Your task to perform on an android device: Go to Reddit.com Image 0: 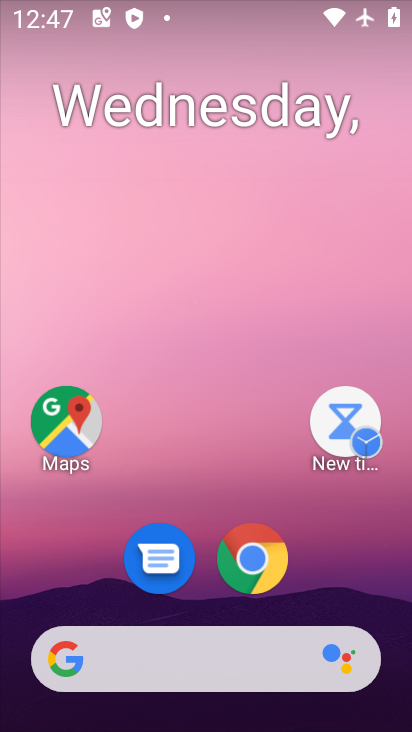
Step 0: click (180, 111)
Your task to perform on an android device: Go to Reddit.com Image 1: 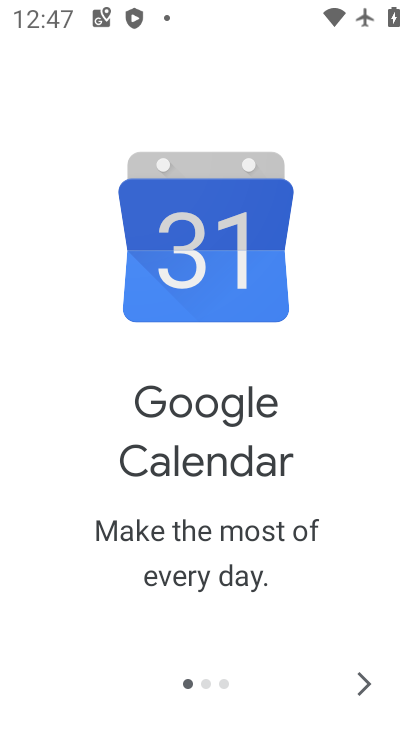
Step 1: click (369, 679)
Your task to perform on an android device: Go to Reddit.com Image 2: 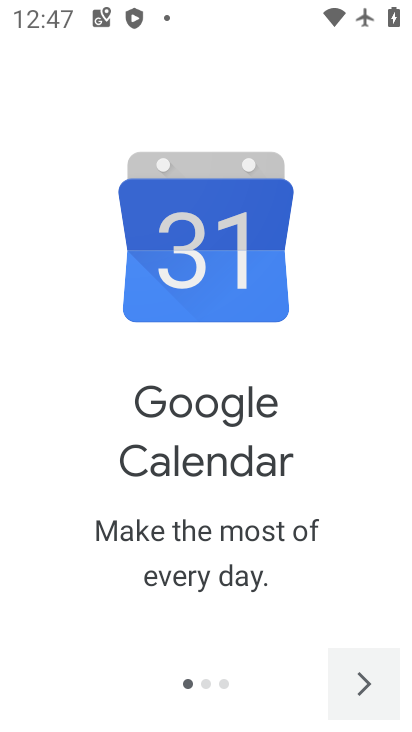
Step 2: click (369, 679)
Your task to perform on an android device: Go to Reddit.com Image 3: 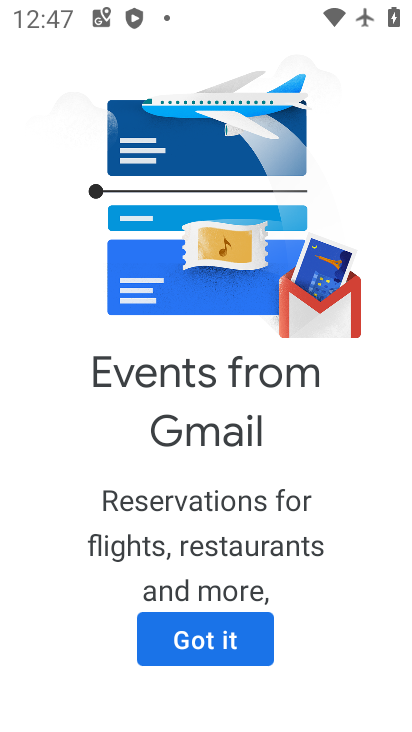
Step 3: click (210, 639)
Your task to perform on an android device: Go to Reddit.com Image 4: 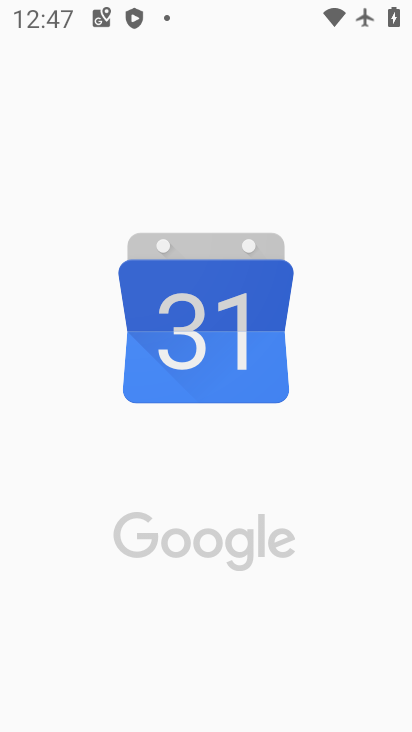
Step 4: click (212, 637)
Your task to perform on an android device: Go to Reddit.com Image 5: 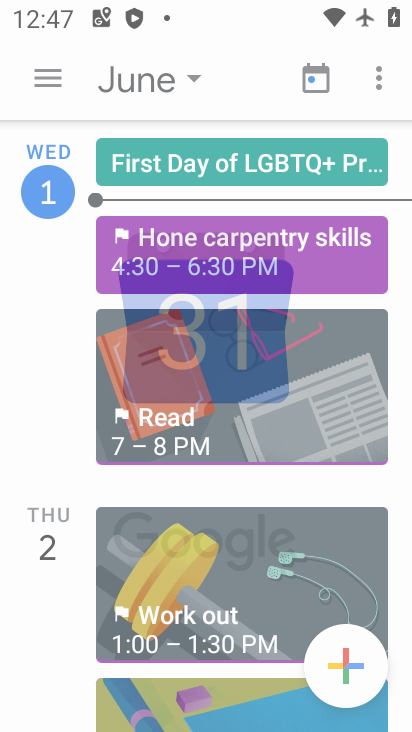
Step 5: click (205, 626)
Your task to perform on an android device: Go to Reddit.com Image 6: 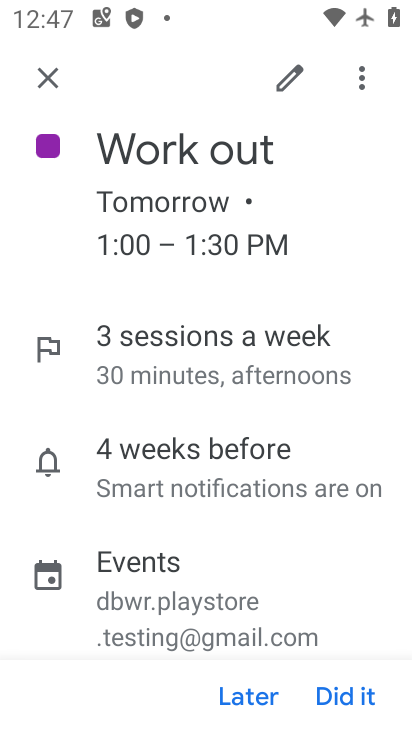
Step 6: press back button
Your task to perform on an android device: Go to Reddit.com Image 7: 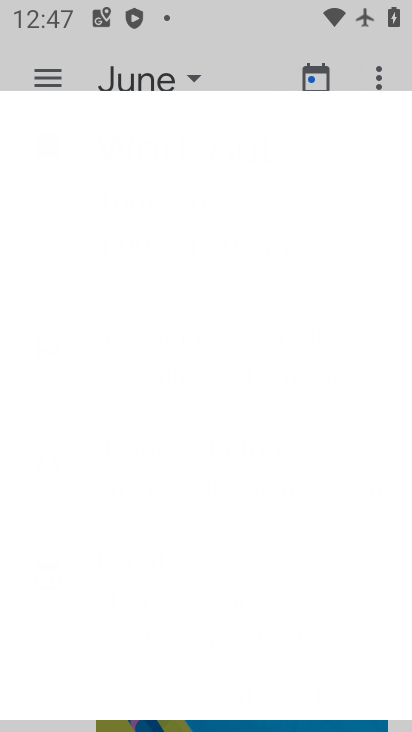
Step 7: press back button
Your task to perform on an android device: Go to Reddit.com Image 8: 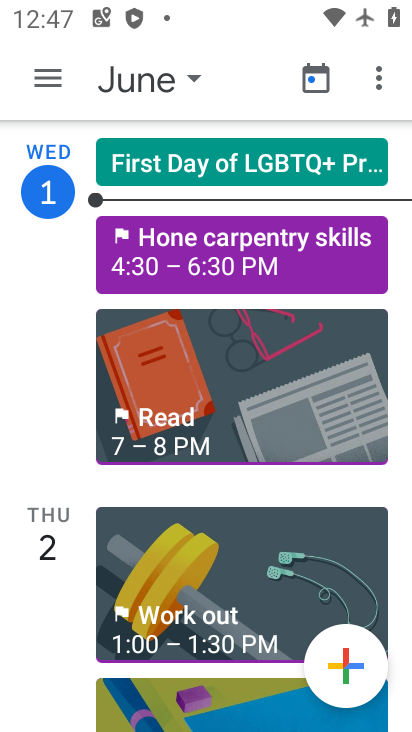
Step 8: press back button
Your task to perform on an android device: Go to Reddit.com Image 9: 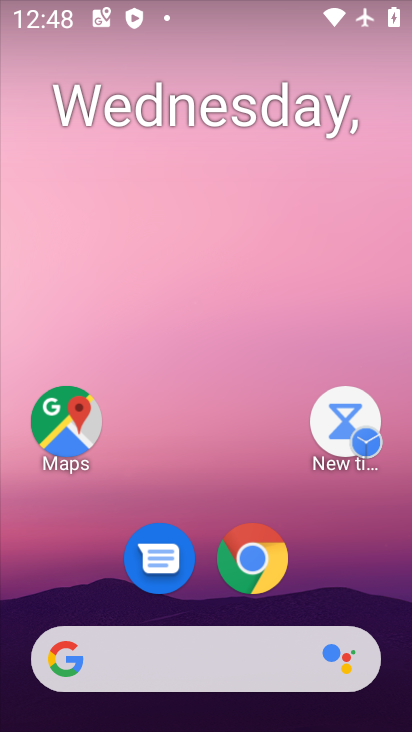
Step 9: drag from (236, 532) to (187, 6)
Your task to perform on an android device: Go to Reddit.com Image 10: 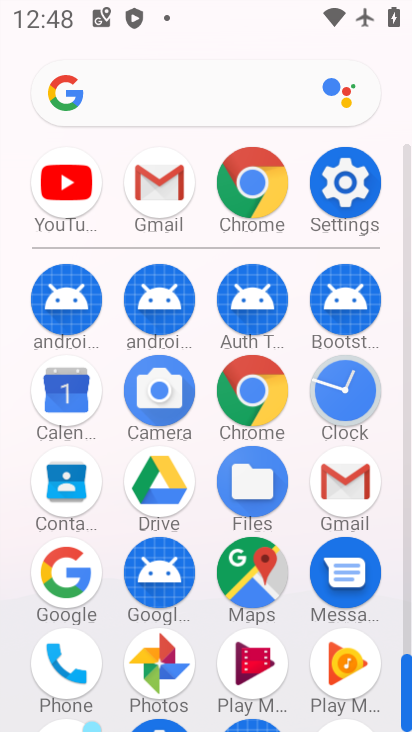
Step 10: click (255, 246)
Your task to perform on an android device: Go to Reddit.com Image 11: 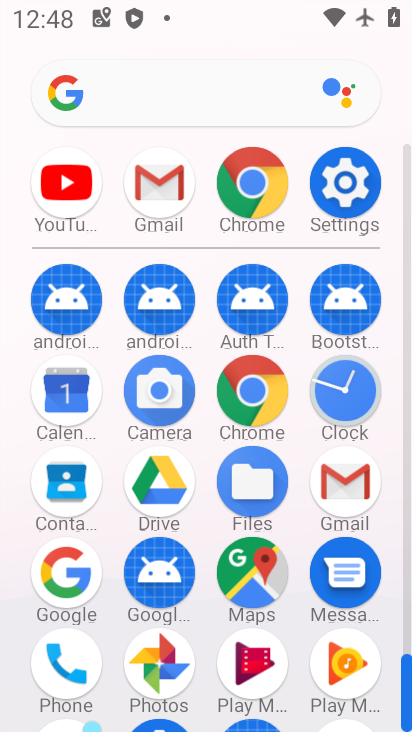
Step 11: click (256, 240)
Your task to perform on an android device: Go to Reddit.com Image 12: 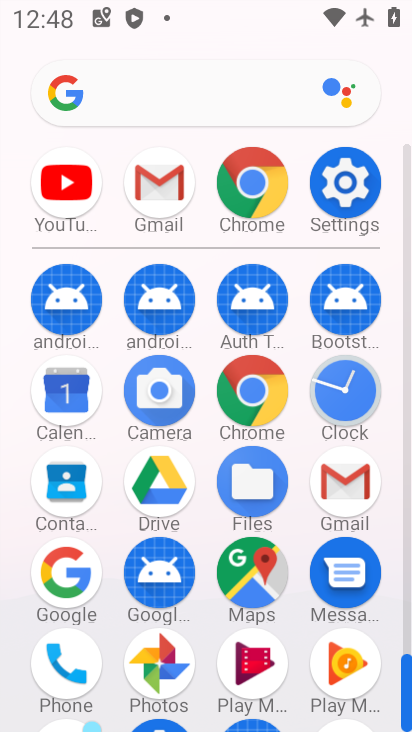
Step 12: click (254, 240)
Your task to perform on an android device: Go to Reddit.com Image 13: 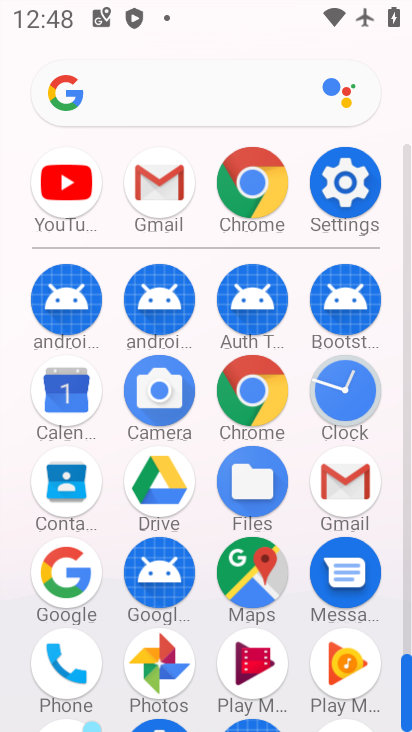
Step 13: click (253, 241)
Your task to perform on an android device: Go to Reddit.com Image 14: 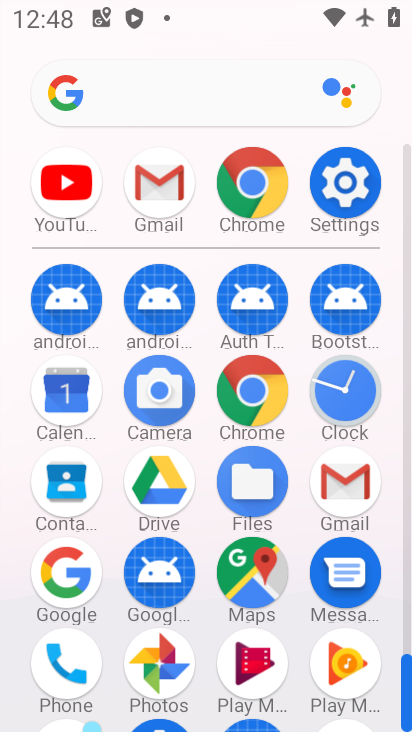
Step 14: click (253, 240)
Your task to perform on an android device: Go to Reddit.com Image 15: 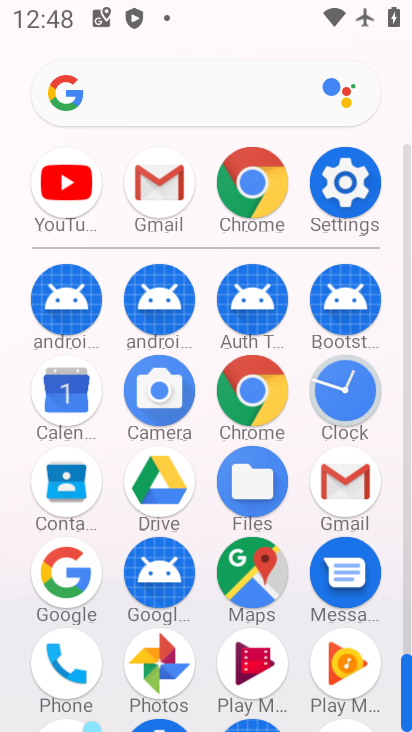
Step 15: click (253, 236)
Your task to perform on an android device: Go to Reddit.com Image 16: 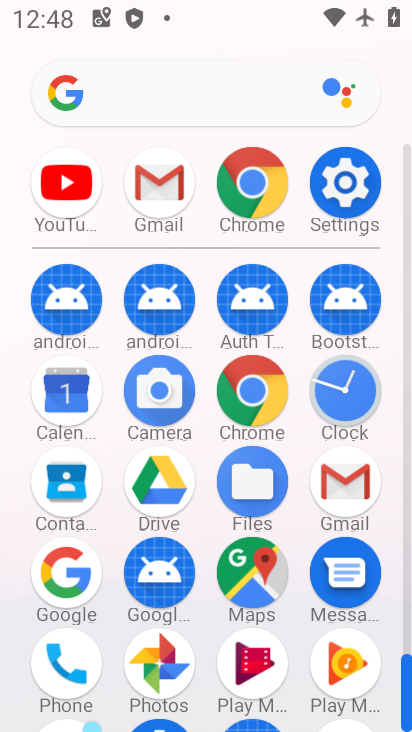
Step 16: click (239, 175)
Your task to perform on an android device: Go to Reddit.com Image 17: 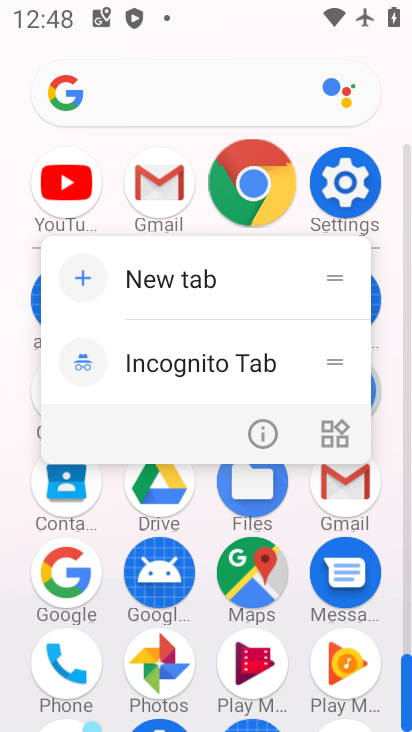
Step 17: click (242, 178)
Your task to perform on an android device: Go to Reddit.com Image 18: 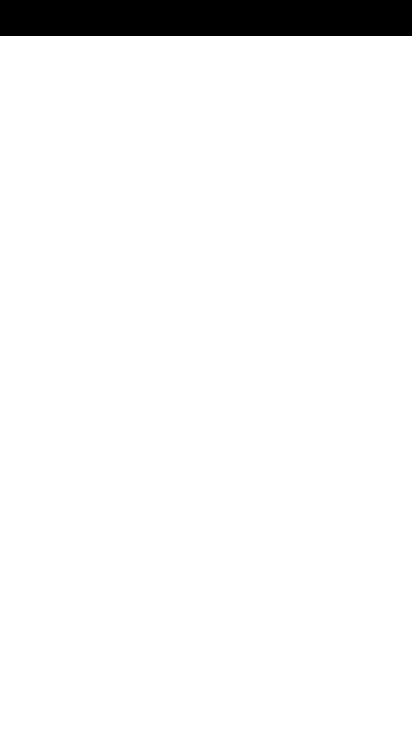
Step 18: click (248, 188)
Your task to perform on an android device: Go to Reddit.com Image 19: 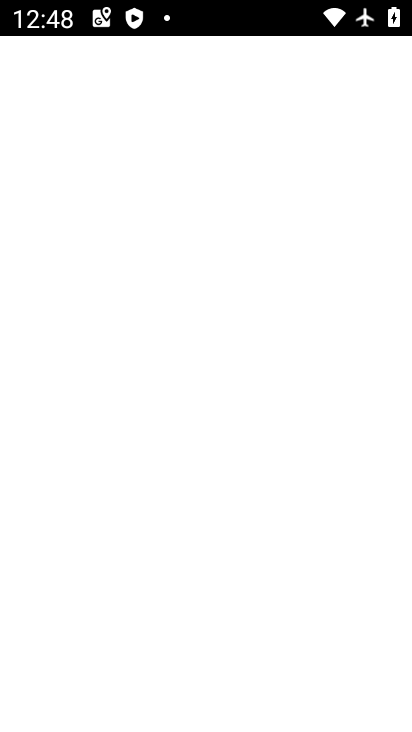
Step 19: click (250, 183)
Your task to perform on an android device: Go to Reddit.com Image 20: 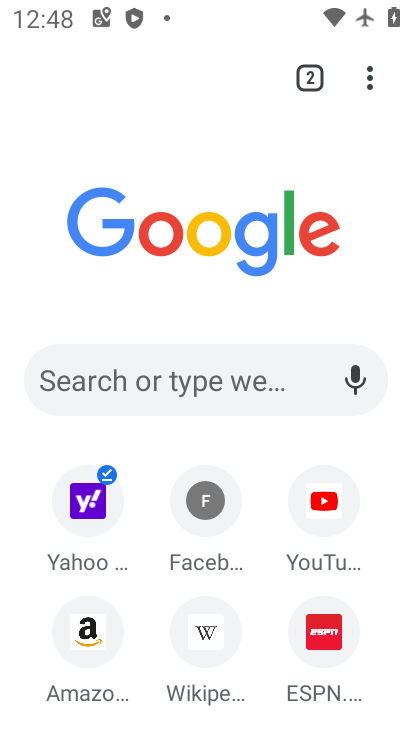
Step 20: drag from (211, 325) to (207, 163)
Your task to perform on an android device: Go to Reddit.com Image 21: 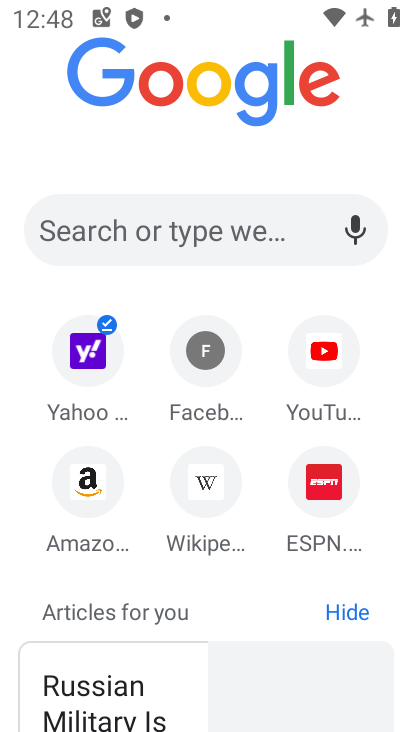
Step 21: drag from (273, 519) to (213, 98)
Your task to perform on an android device: Go to Reddit.com Image 22: 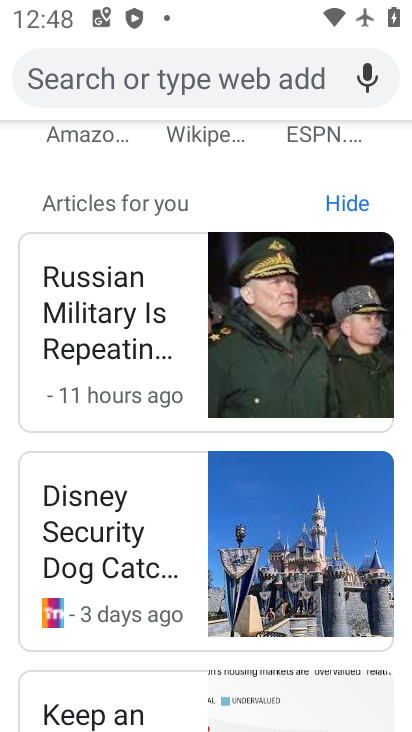
Step 22: press back button
Your task to perform on an android device: Go to Reddit.com Image 23: 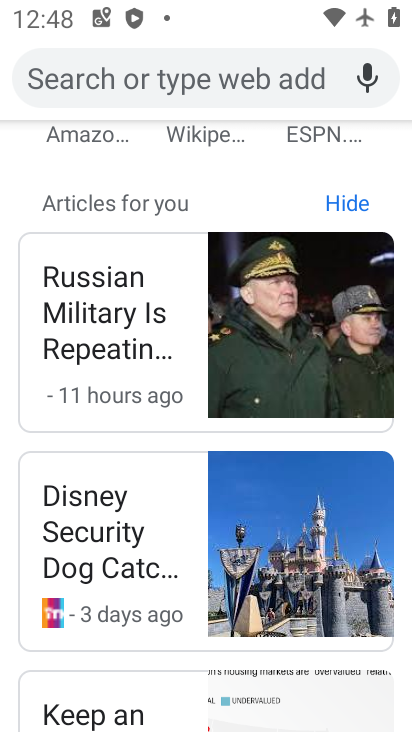
Step 23: press back button
Your task to perform on an android device: Go to Reddit.com Image 24: 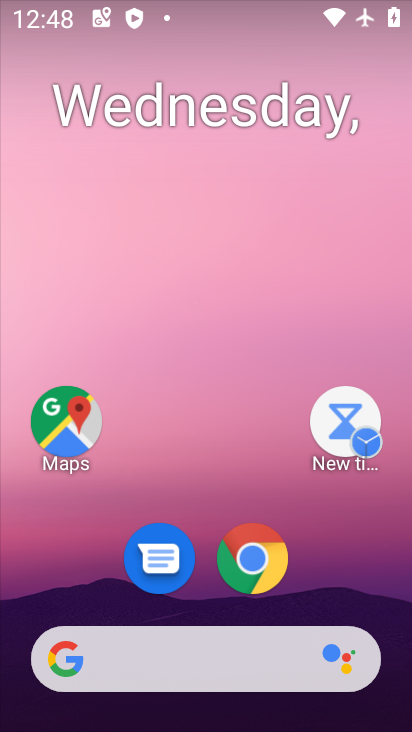
Step 24: drag from (198, 534) to (193, 78)
Your task to perform on an android device: Go to Reddit.com Image 25: 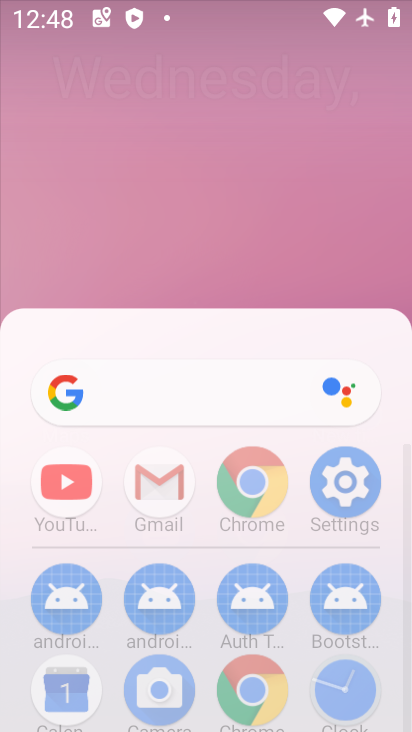
Step 25: drag from (215, 519) to (186, 51)
Your task to perform on an android device: Go to Reddit.com Image 26: 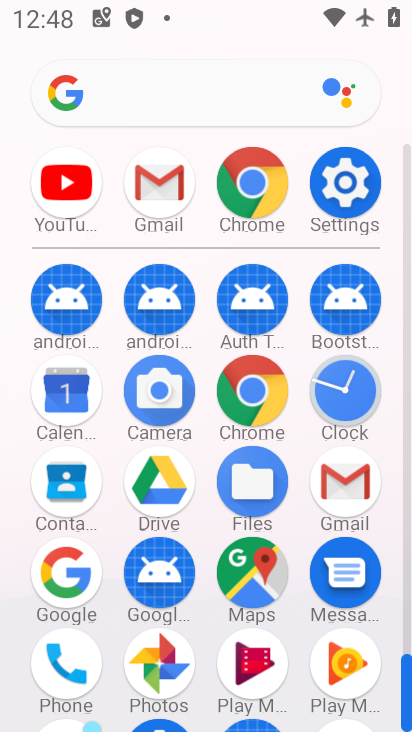
Step 26: drag from (190, 513) to (187, 2)
Your task to perform on an android device: Go to Reddit.com Image 27: 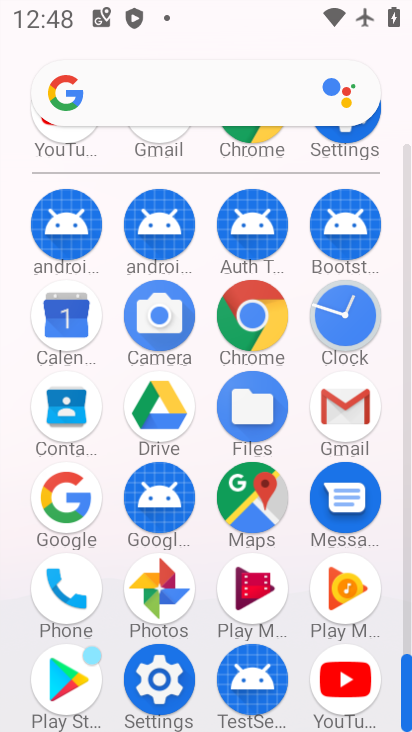
Step 27: drag from (228, 223) to (228, 121)
Your task to perform on an android device: Go to Reddit.com Image 28: 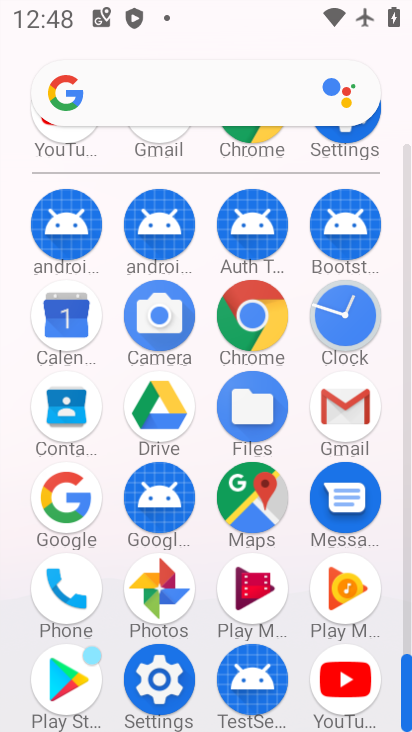
Step 28: drag from (226, 500) to (196, 175)
Your task to perform on an android device: Go to Reddit.com Image 29: 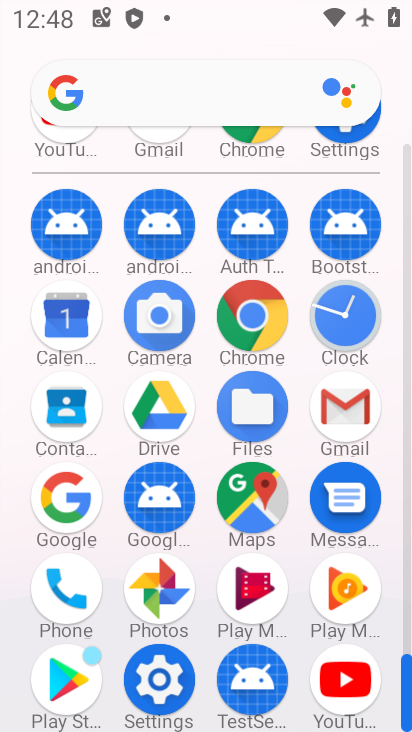
Step 29: drag from (185, 221) to (178, 113)
Your task to perform on an android device: Go to Reddit.com Image 30: 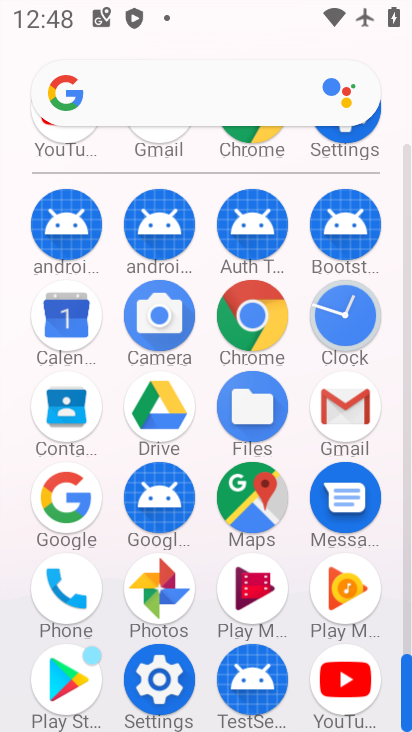
Step 30: drag from (190, 256) to (294, 552)
Your task to perform on an android device: Go to Reddit.com Image 31: 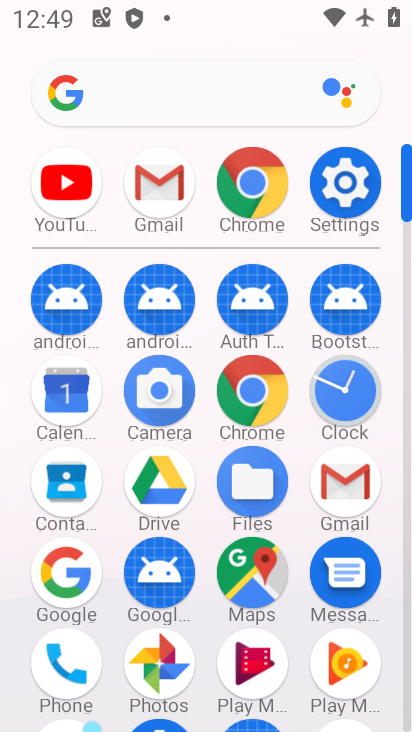
Step 31: click (248, 187)
Your task to perform on an android device: Go to Reddit.com Image 32: 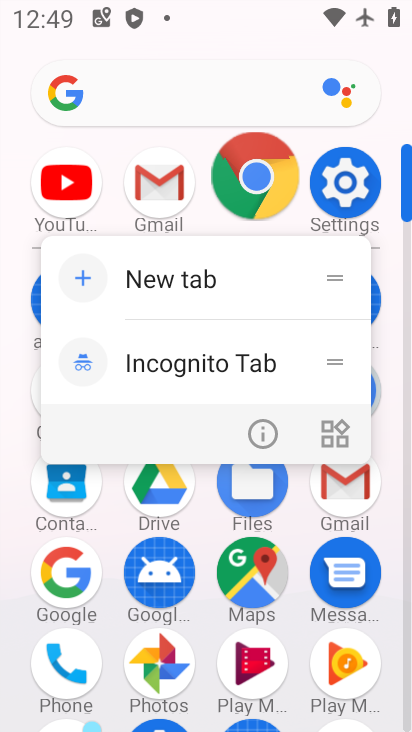
Step 32: click (251, 182)
Your task to perform on an android device: Go to Reddit.com Image 33: 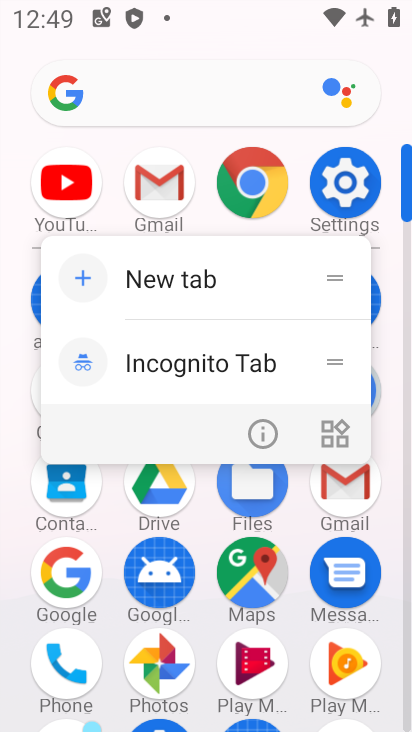
Step 33: click (251, 189)
Your task to perform on an android device: Go to Reddit.com Image 34: 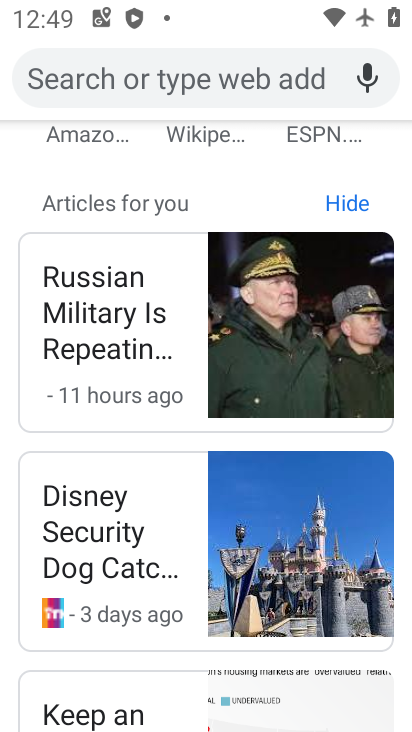
Step 34: click (61, 74)
Your task to perform on an android device: Go to Reddit.com Image 35: 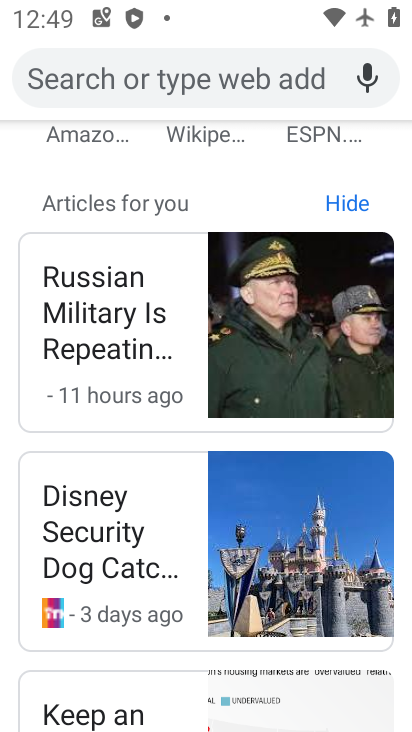
Step 35: click (58, 74)
Your task to perform on an android device: Go to Reddit.com Image 36: 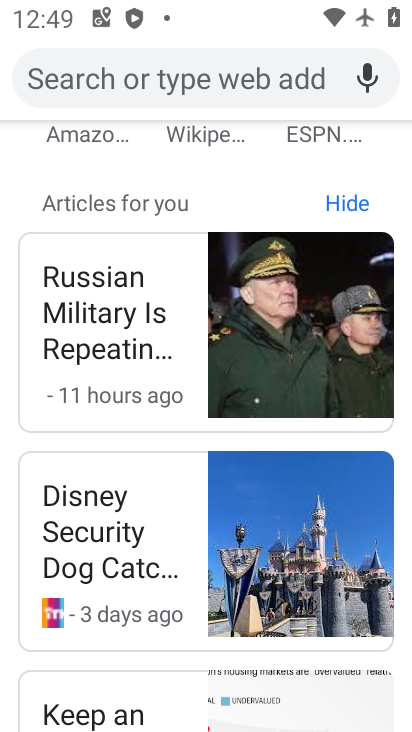
Step 36: click (51, 79)
Your task to perform on an android device: Go to Reddit.com Image 37: 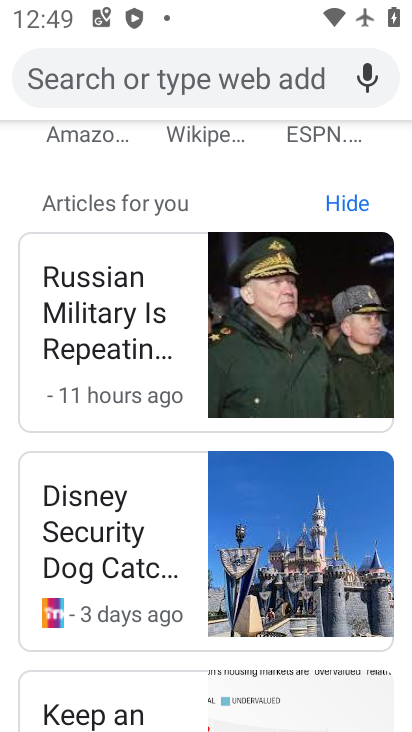
Step 37: click (51, 79)
Your task to perform on an android device: Go to Reddit.com Image 38: 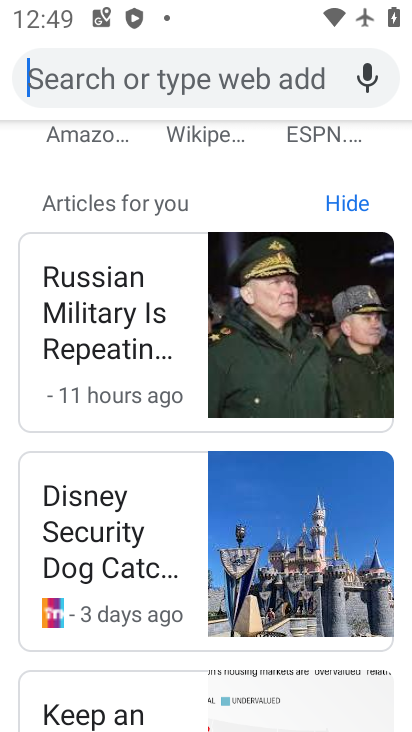
Step 38: click (51, 82)
Your task to perform on an android device: Go to Reddit.com Image 39: 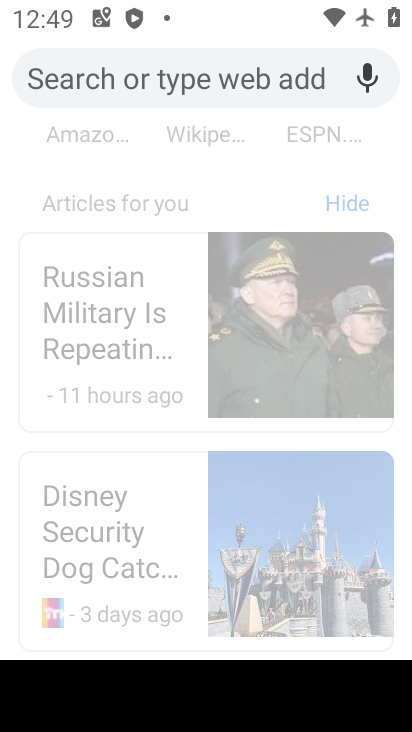
Step 39: click (49, 61)
Your task to perform on an android device: Go to Reddit.com Image 40: 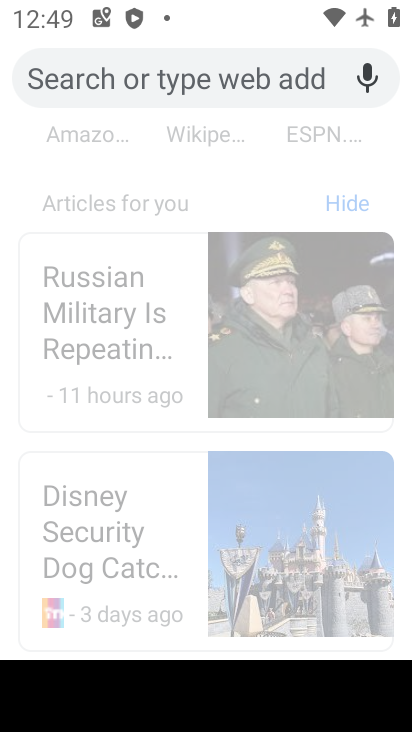
Step 40: click (50, 77)
Your task to perform on an android device: Go to Reddit.com Image 41: 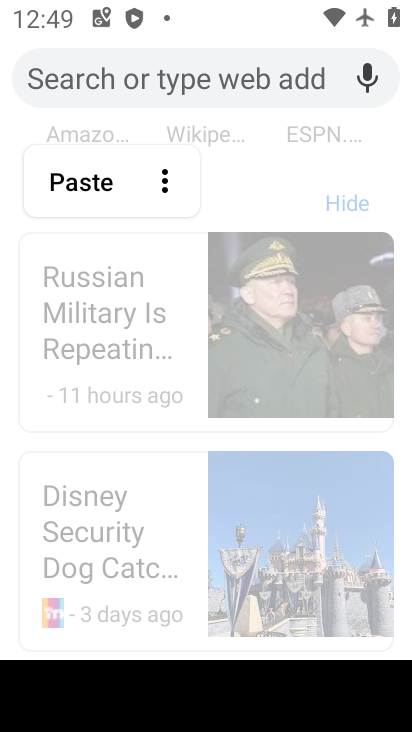
Step 41: type "reddit.com"
Your task to perform on an android device: Go to Reddit.com Image 42: 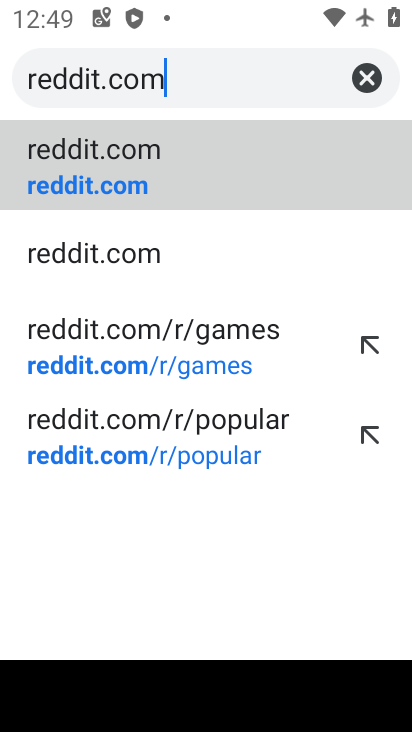
Step 42: click (59, 177)
Your task to perform on an android device: Go to Reddit.com Image 43: 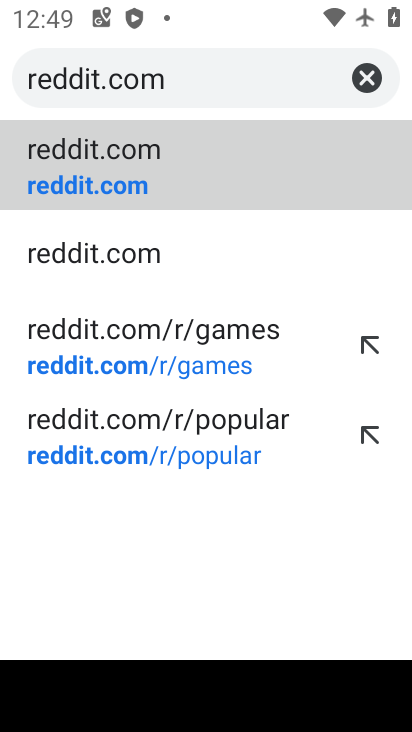
Step 43: click (59, 177)
Your task to perform on an android device: Go to Reddit.com Image 44: 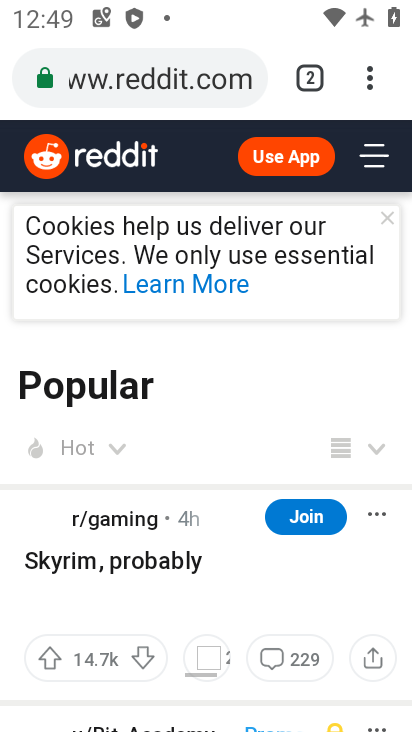
Step 44: task complete